Your task to perform on an android device: open app "VLC for Android" (install if not already installed) Image 0: 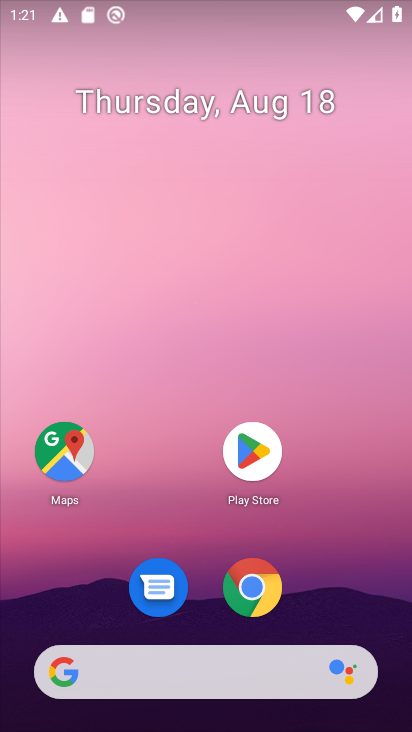
Step 0: press home button
Your task to perform on an android device: open app "VLC for Android" (install if not already installed) Image 1: 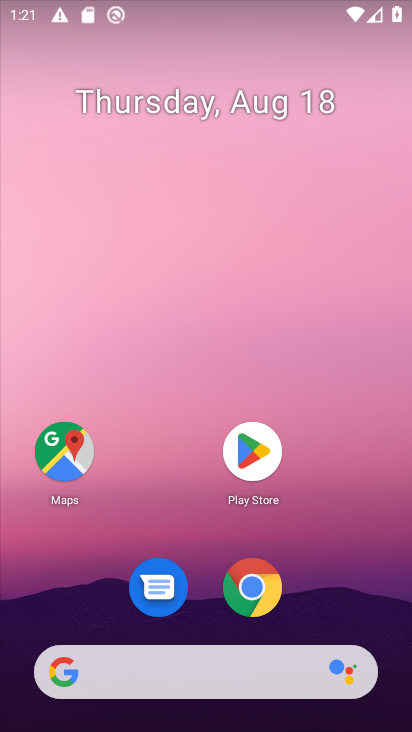
Step 1: click (259, 449)
Your task to perform on an android device: open app "VLC for Android" (install if not already installed) Image 2: 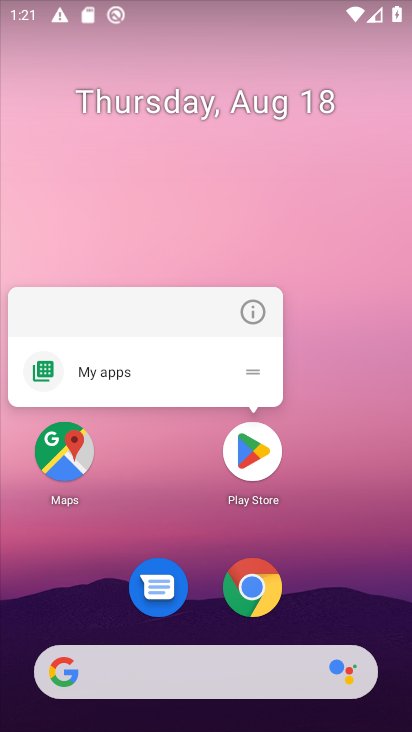
Step 2: click (249, 460)
Your task to perform on an android device: open app "VLC for Android" (install if not already installed) Image 3: 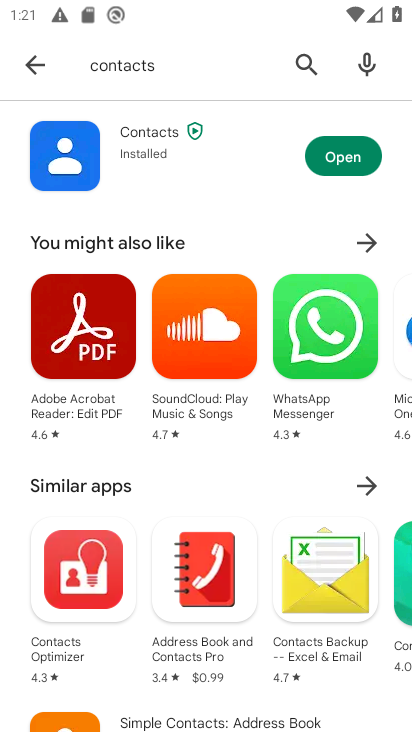
Step 3: click (313, 59)
Your task to perform on an android device: open app "VLC for Android" (install if not already installed) Image 4: 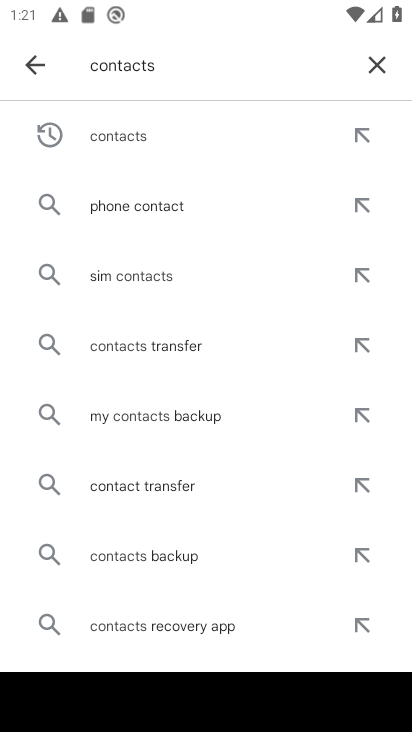
Step 4: click (377, 56)
Your task to perform on an android device: open app "VLC for Android" (install if not already installed) Image 5: 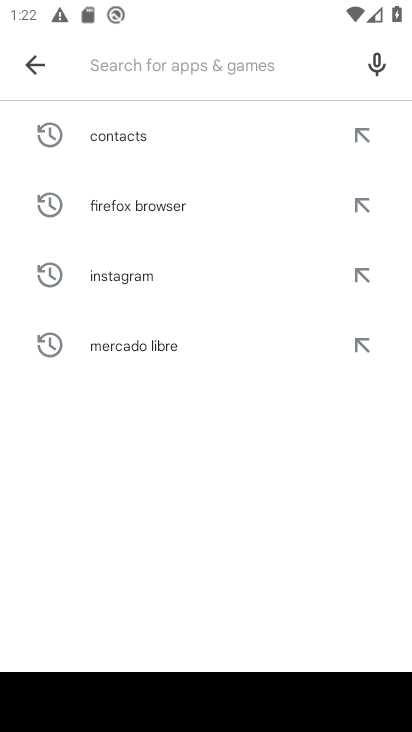
Step 5: type "VLC for Android"
Your task to perform on an android device: open app "VLC for Android" (install if not already installed) Image 6: 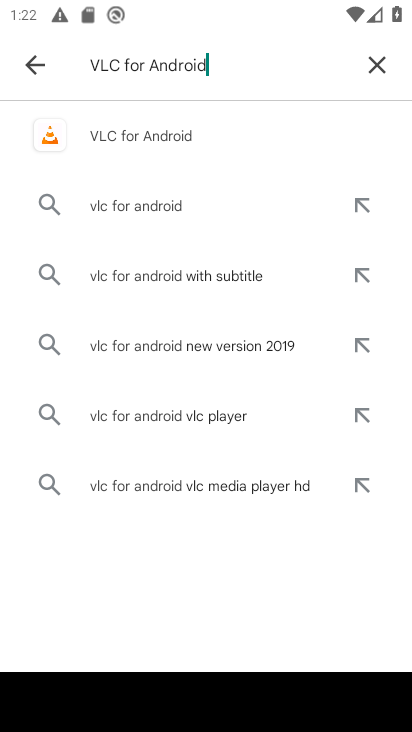
Step 6: click (161, 136)
Your task to perform on an android device: open app "VLC for Android" (install if not already installed) Image 7: 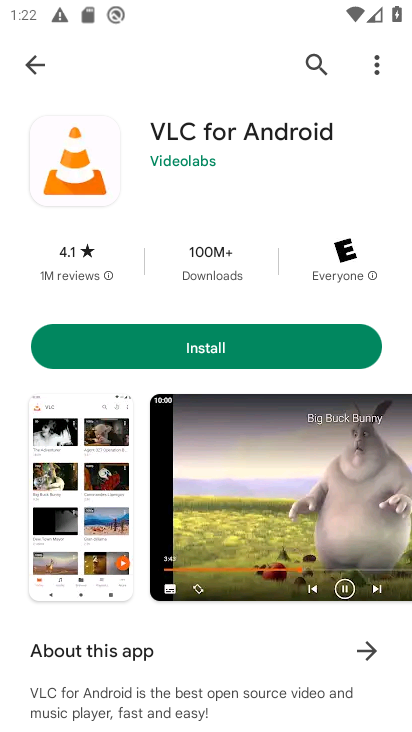
Step 7: click (211, 345)
Your task to perform on an android device: open app "VLC for Android" (install if not already installed) Image 8: 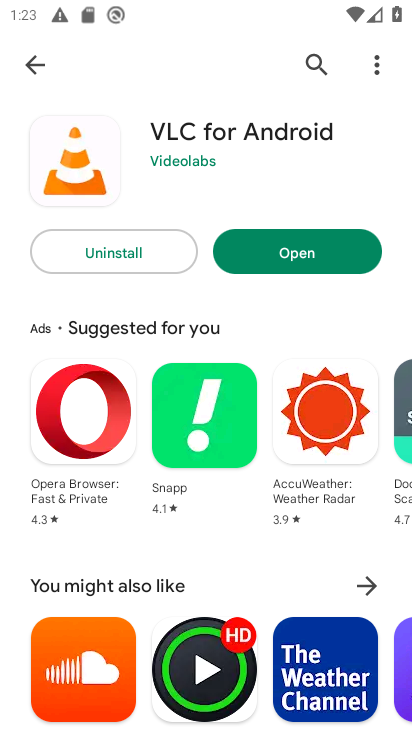
Step 8: click (305, 257)
Your task to perform on an android device: open app "VLC for Android" (install if not already installed) Image 9: 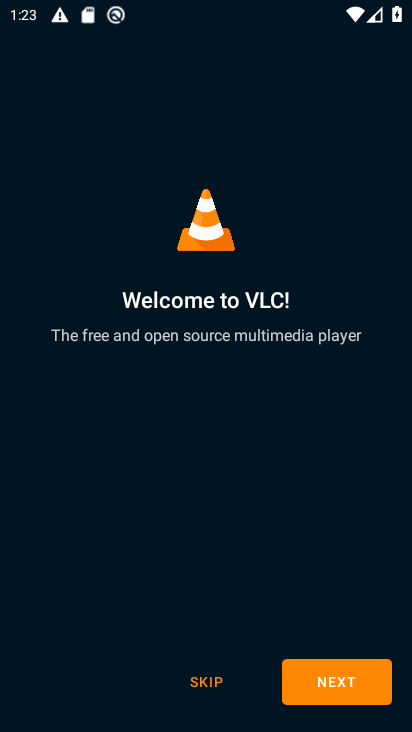
Step 9: task complete